Your task to perform on an android device: Open my contact list Image 0: 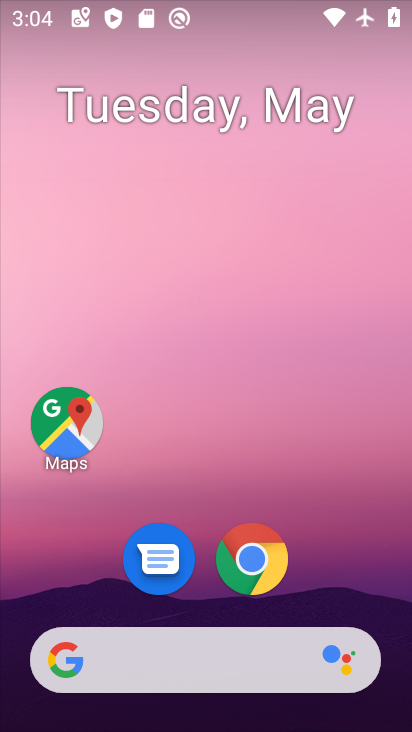
Step 0: drag from (203, 672) to (384, 175)
Your task to perform on an android device: Open my contact list Image 1: 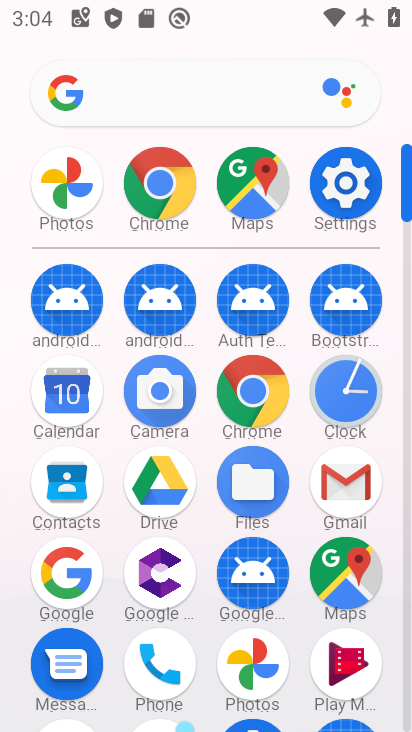
Step 1: click (77, 491)
Your task to perform on an android device: Open my contact list Image 2: 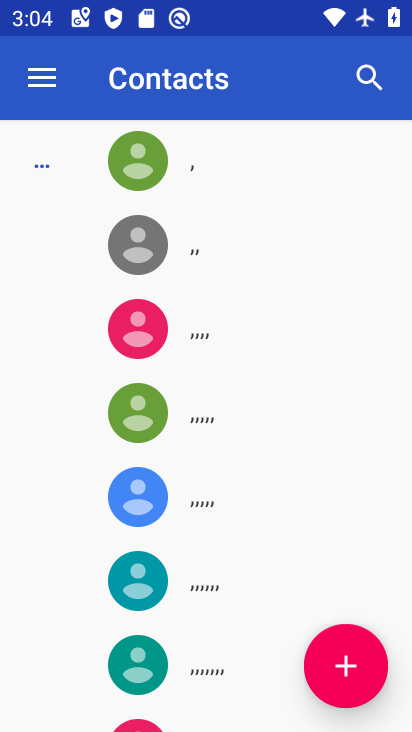
Step 2: task complete